Your task to perform on an android device: change text size in settings app Image 0: 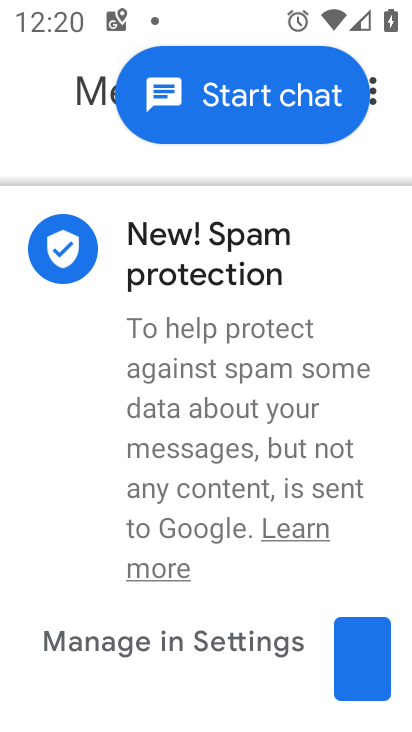
Step 0: press home button
Your task to perform on an android device: change text size in settings app Image 1: 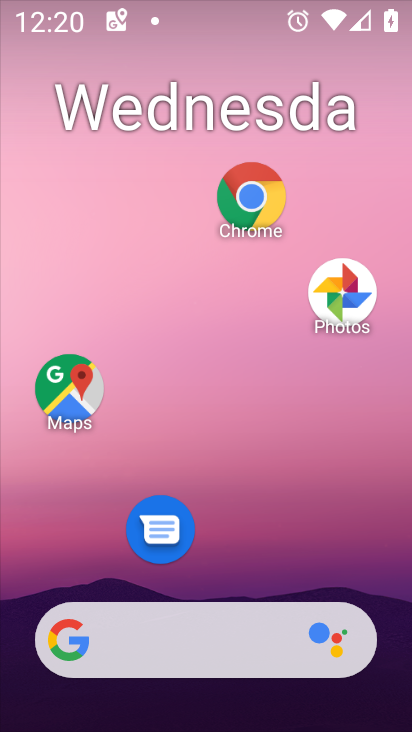
Step 1: drag from (234, 613) to (249, 168)
Your task to perform on an android device: change text size in settings app Image 2: 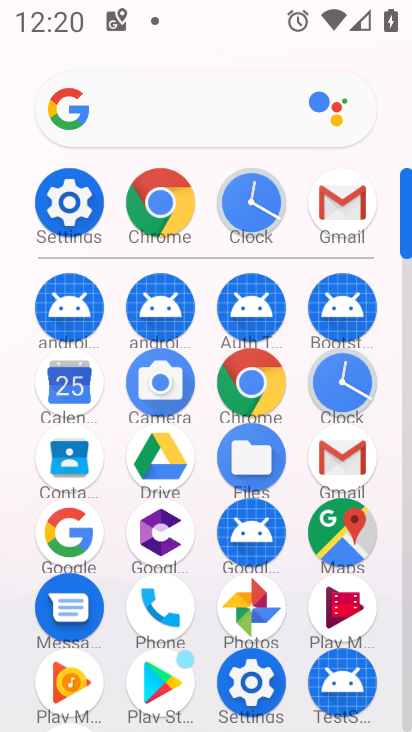
Step 2: click (254, 692)
Your task to perform on an android device: change text size in settings app Image 3: 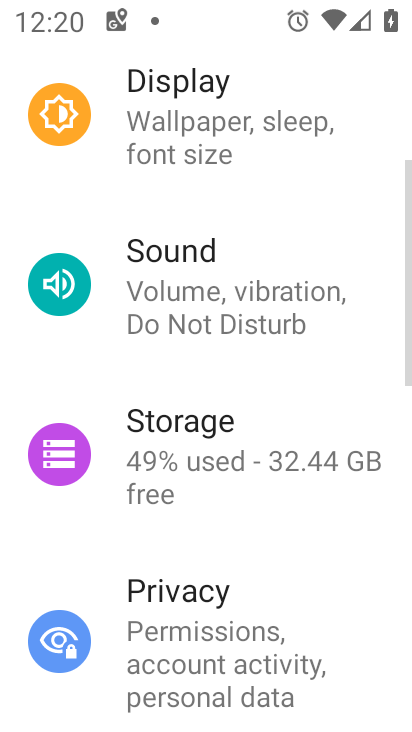
Step 3: drag from (222, 272) to (215, 689)
Your task to perform on an android device: change text size in settings app Image 4: 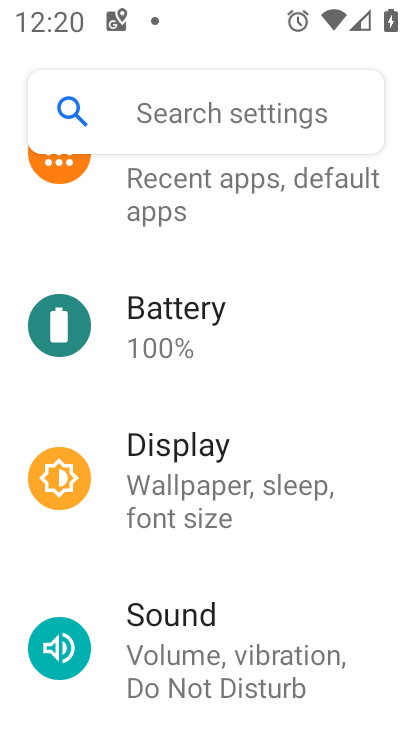
Step 4: drag from (292, 327) to (295, 682)
Your task to perform on an android device: change text size in settings app Image 5: 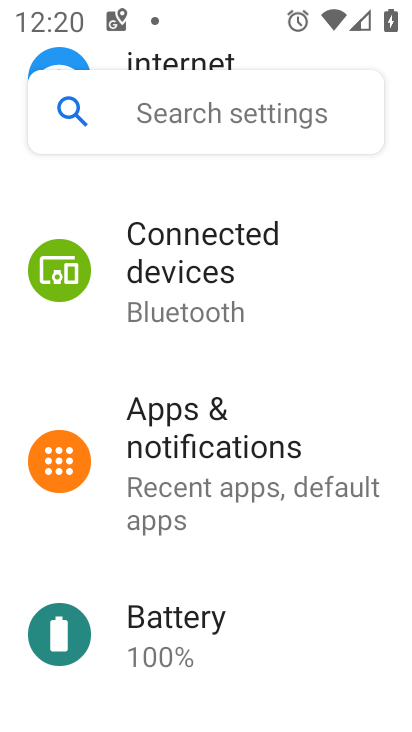
Step 5: drag from (230, 295) to (221, 575)
Your task to perform on an android device: change text size in settings app Image 6: 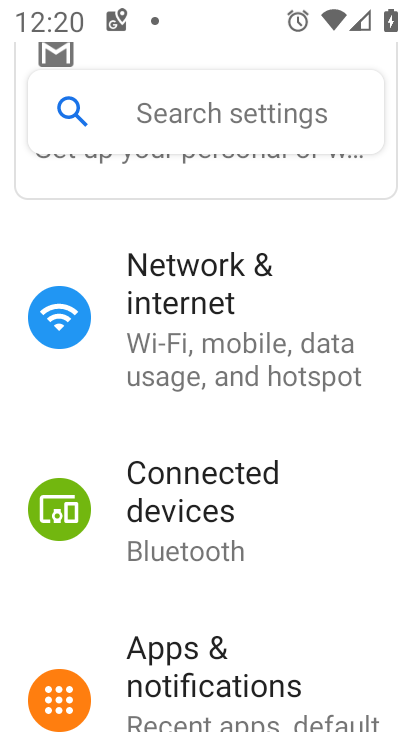
Step 6: drag from (215, 351) to (205, 605)
Your task to perform on an android device: change text size in settings app Image 7: 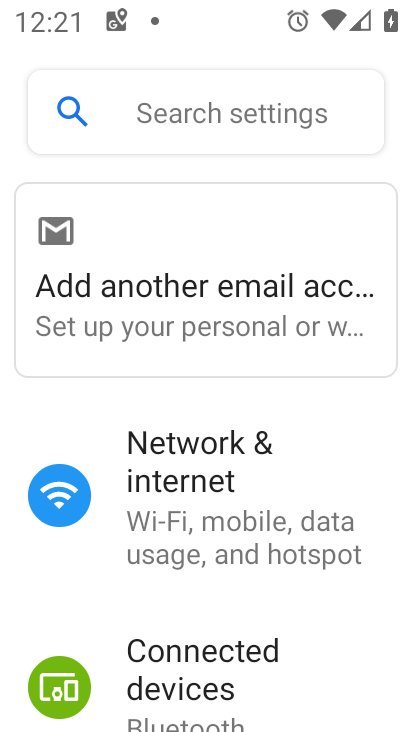
Step 7: drag from (198, 395) to (196, 577)
Your task to perform on an android device: change text size in settings app Image 8: 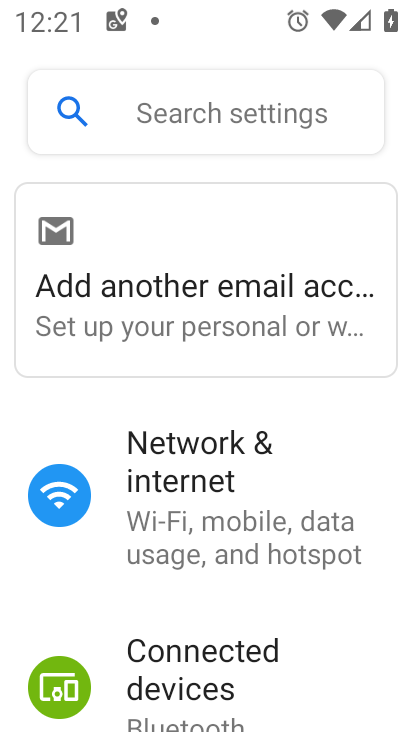
Step 8: drag from (209, 596) to (283, 139)
Your task to perform on an android device: change text size in settings app Image 9: 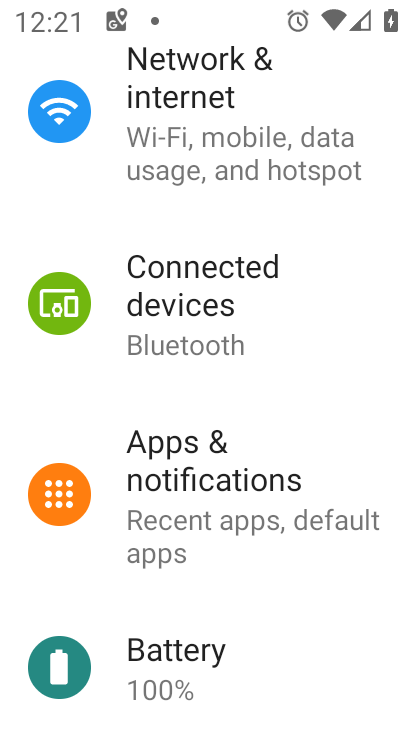
Step 9: drag from (211, 590) to (270, 230)
Your task to perform on an android device: change text size in settings app Image 10: 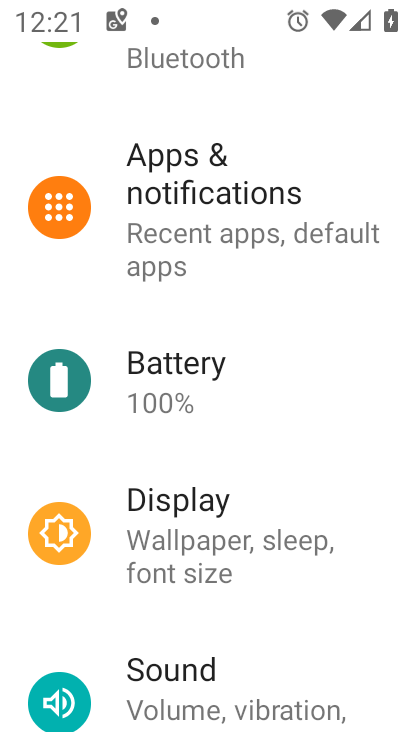
Step 10: click (239, 548)
Your task to perform on an android device: change text size in settings app Image 11: 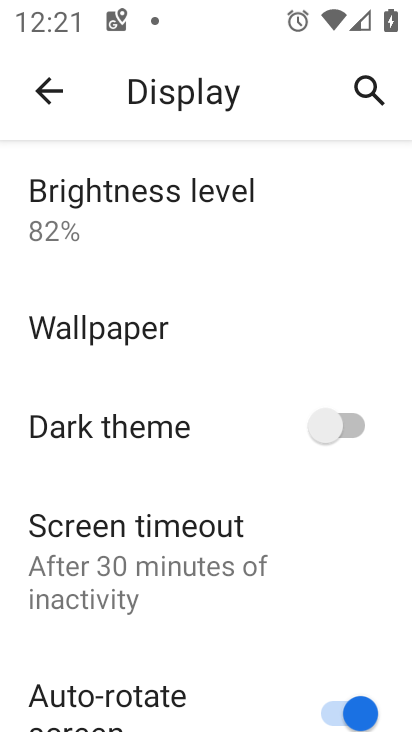
Step 11: drag from (183, 580) to (205, 173)
Your task to perform on an android device: change text size in settings app Image 12: 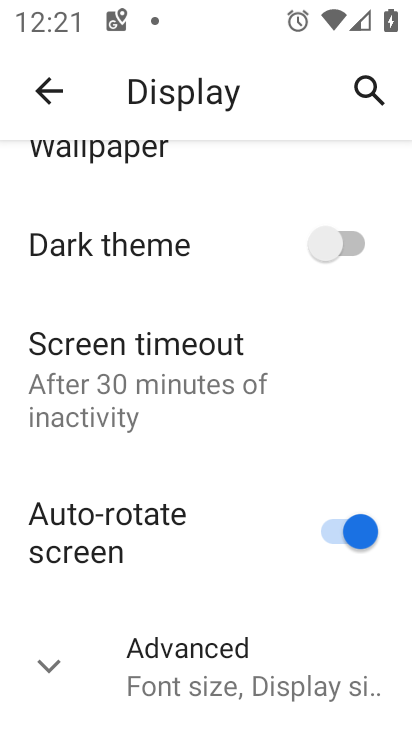
Step 12: click (216, 660)
Your task to perform on an android device: change text size in settings app Image 13: 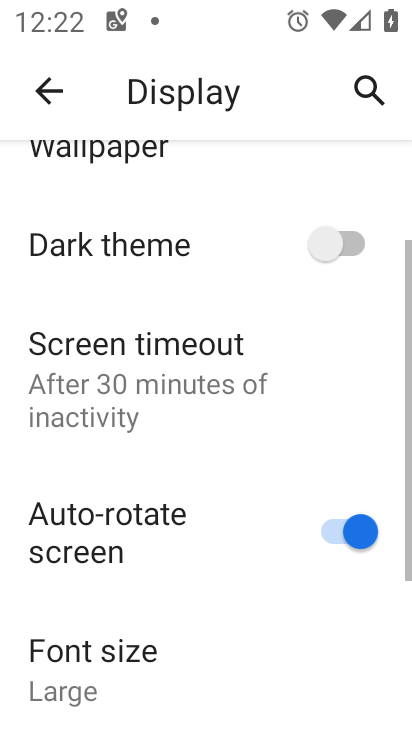
Step 13: click (179, 664)
Your task to perform on an android device: change text size in settings app Image 14: 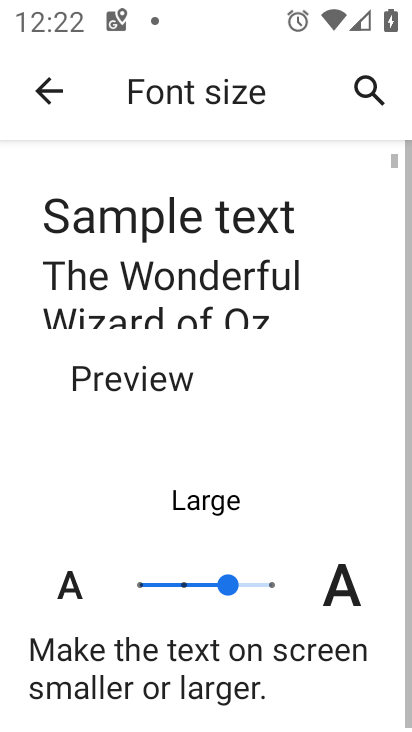
Step 14: click (196, 579)
Your task to perform on an android device: change text size in settings app Image 15: 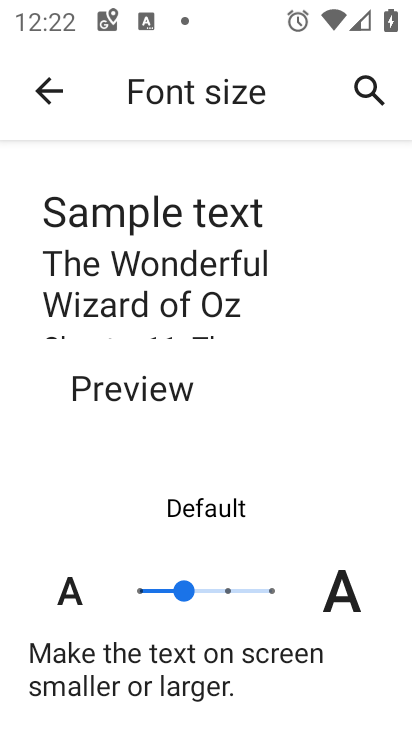
Step 15: task complete